Your task to perform on an android device: turn off sleep mode Image 0: 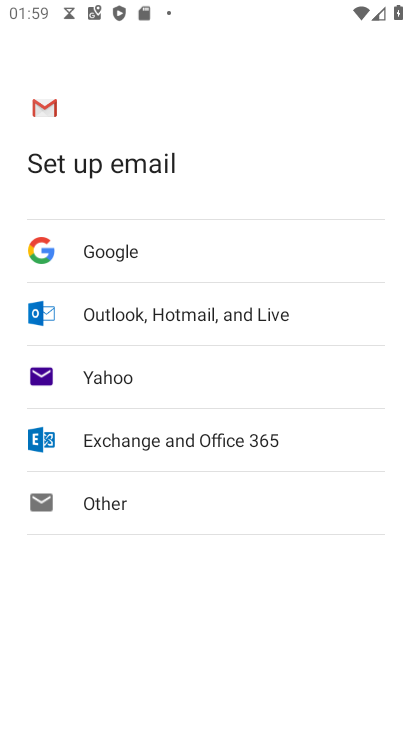
Step 0: press home button
Your task to perform on an android device: turn off sleep mode Image 1: 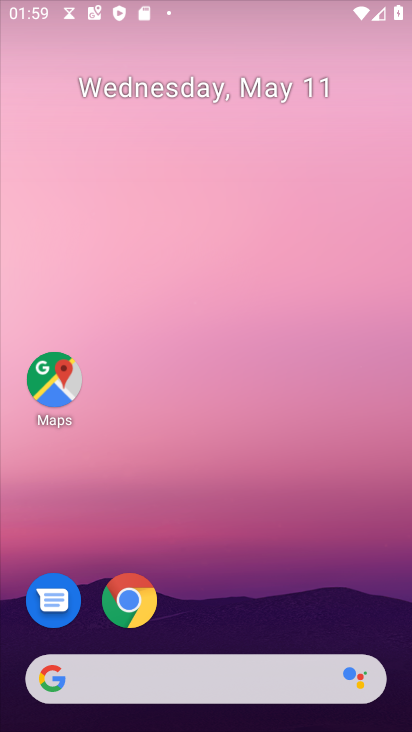
Step 1: drag from (213, 499) to (258, 260)
Your task to perform on an android device: turn off sleep mode Image 2: 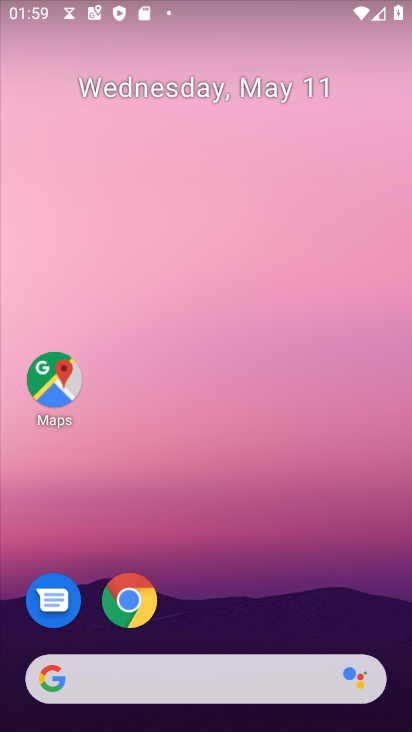
Step 2: drag from (232, 558) to (234, 263)
Your task to perform on an android device: turn off sleep mode Image 3: 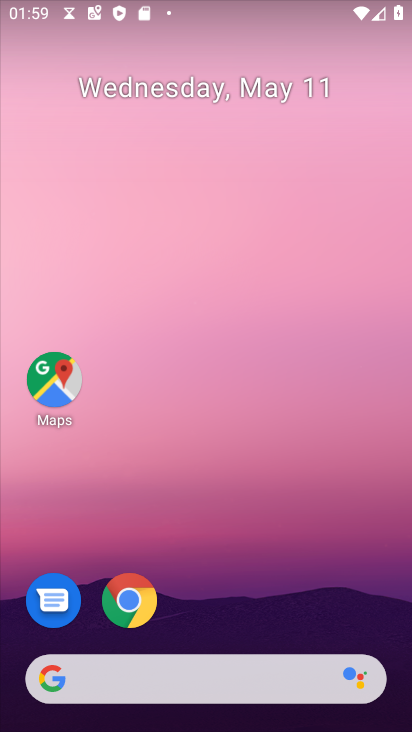
Step 3: drag from (251, 391) to (251, 200)
Your task to perform on an android device: turn off sleep mode Image 4: 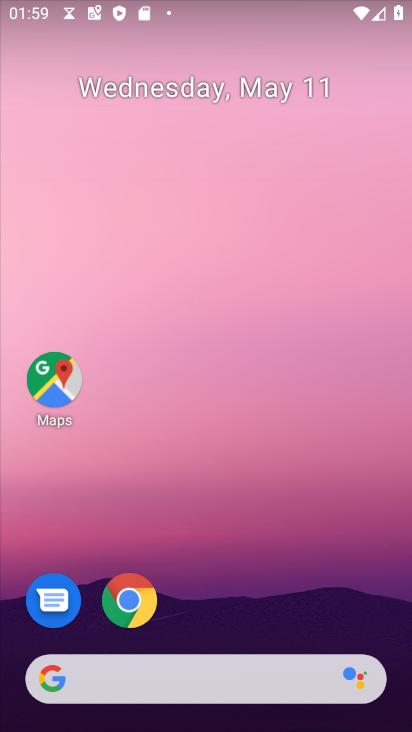
Step 4: drag from (272, 339) to (310, 43)
Your task to perform on an android device: turn off sleep mode Image 5: 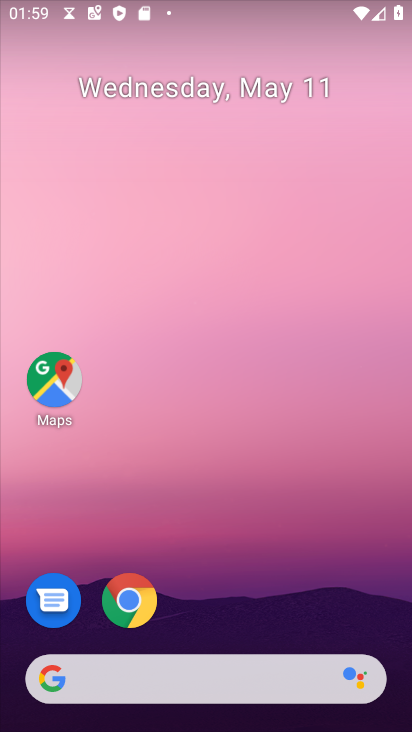
Step 5: drag from (195, 690) to (195, 289)
Your task to perform on an android device: turn off sleep mode Image 6: 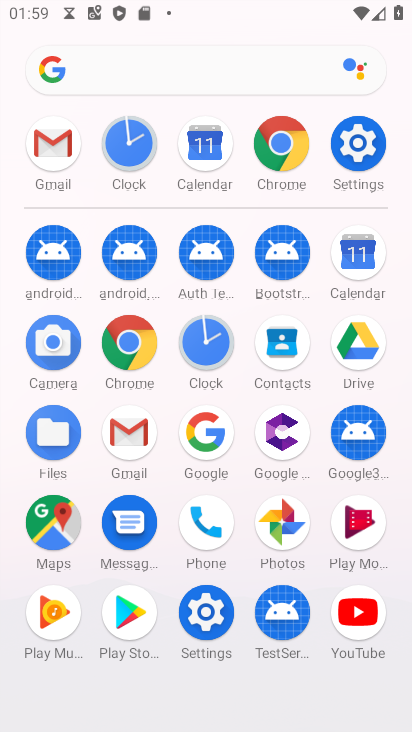
Step 6: click (371, 133)
Your task to perform on an android device: turn off sleep mode Image 7: 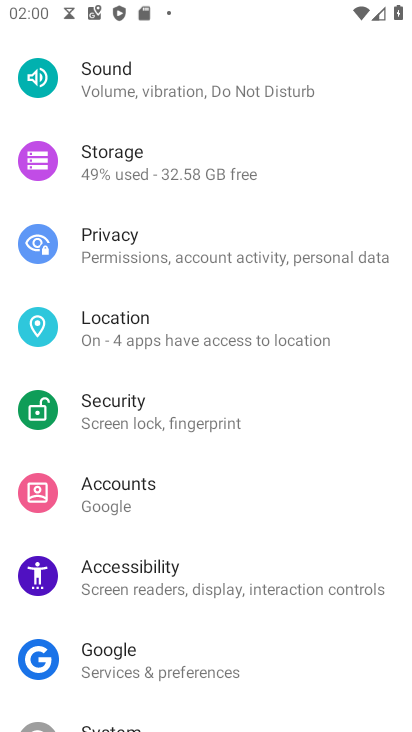
Step 7: task complete